Your task to perform on an android device: delete location history Image 0: 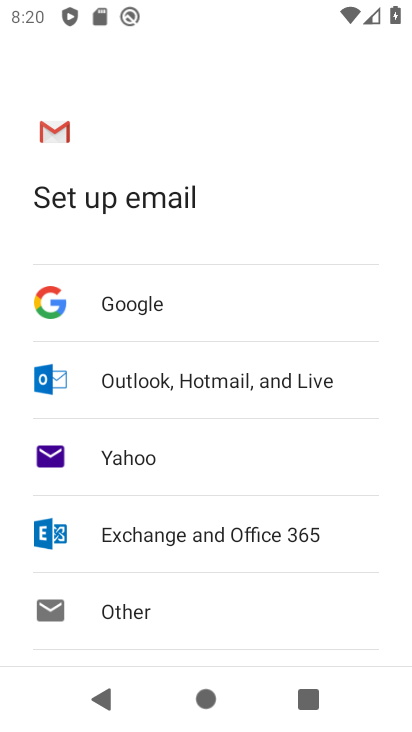
Step 0: press home button
Your task to perform on an android device: delete location history Image 1: 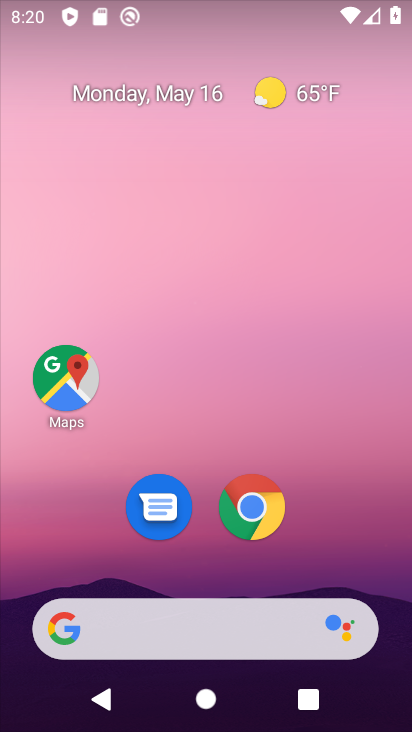
Step 1: drag from (190, 567) to (188, 0)
Your task to perform on an android device: delete location history Image 2: 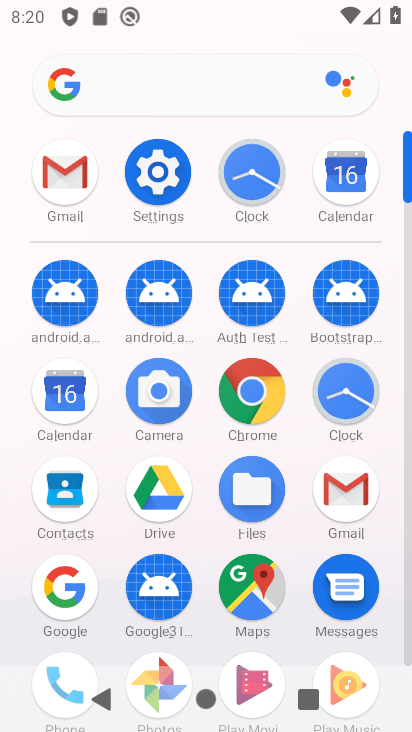
Step 2: click (262, 605)
Your task to perform on an android device: delete location history Image 3: 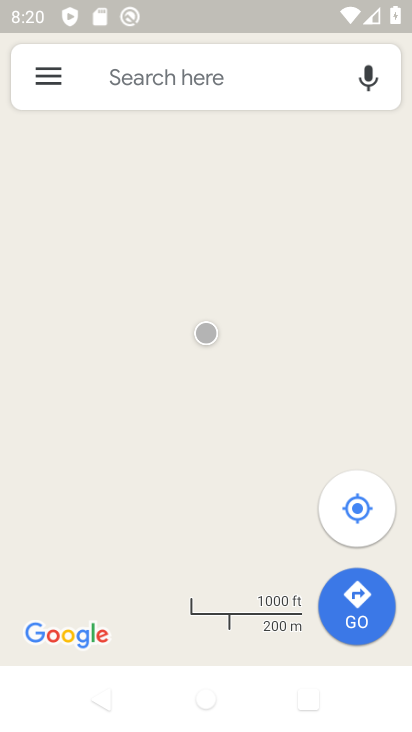
Step 3: click (28, 76)
Your task to perform on an android device: delete location history Image 4: 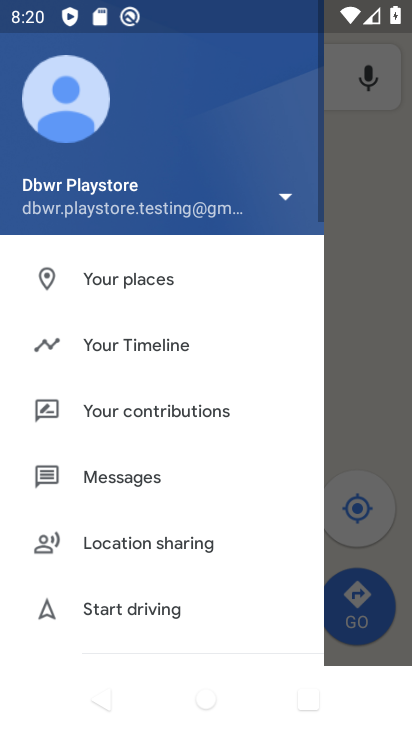
Step 4: drag from (92, 520) to (65, 151)
Your task to perform on an android device: delete location history Image 5: 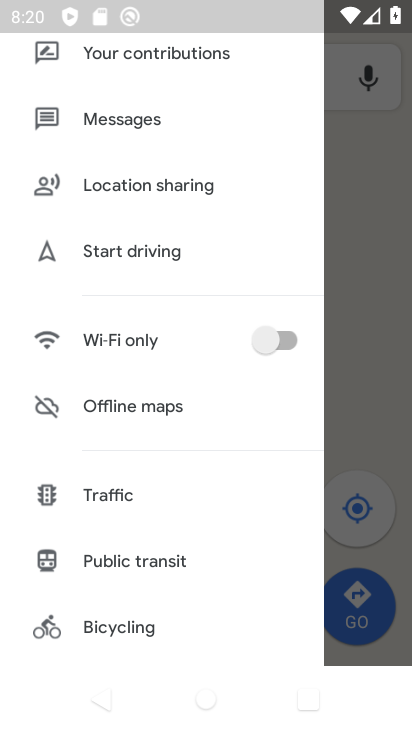
Step 5: drag from (137, 462) to (132, 61)
Your task to perform on an android device: delete location history Image 6: 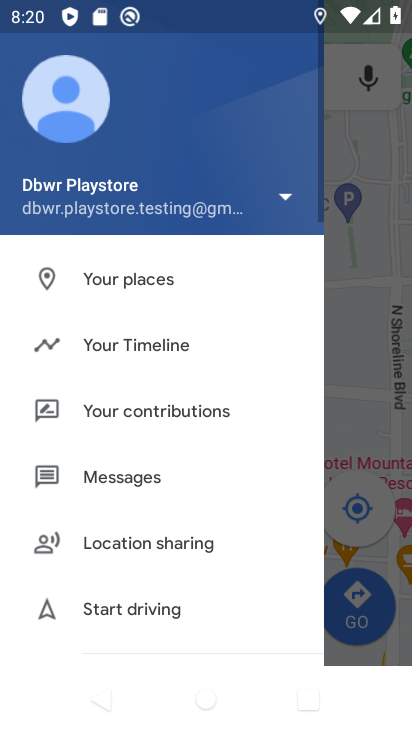
Step 6: drag from (162, 498) to (149, 96)
Your task to perform on an android device: delete location history Image 7: 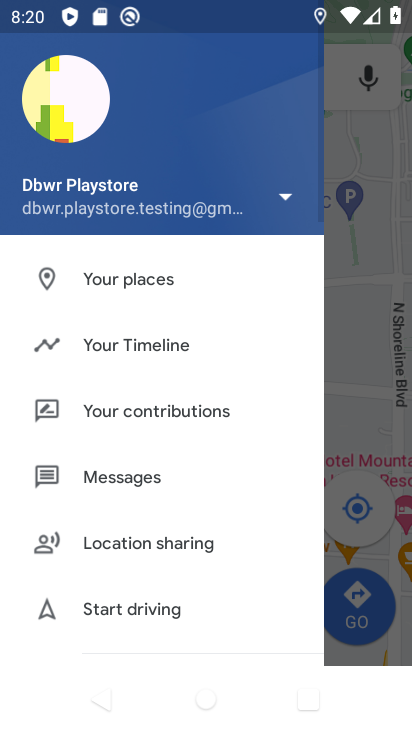
Step 7: drag from (167, 627) to (134, 43)
Your task to perform on an android device: delete location history Image 8: 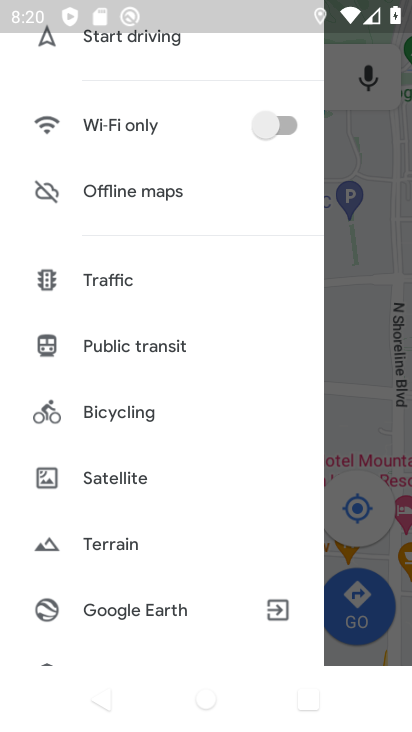
Step 8: drag from (158, 608) to (110, 110)
Your task to perform on an android device: delete location history Image 9: 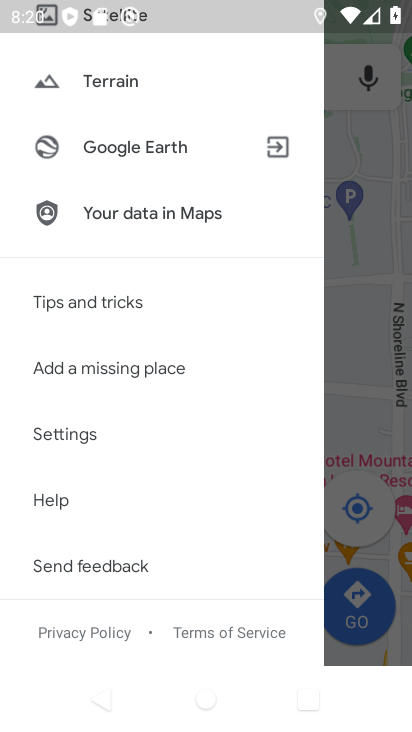
Step 9: click (76, 444)
Your task to perform on an android device: delete location history Image 10: 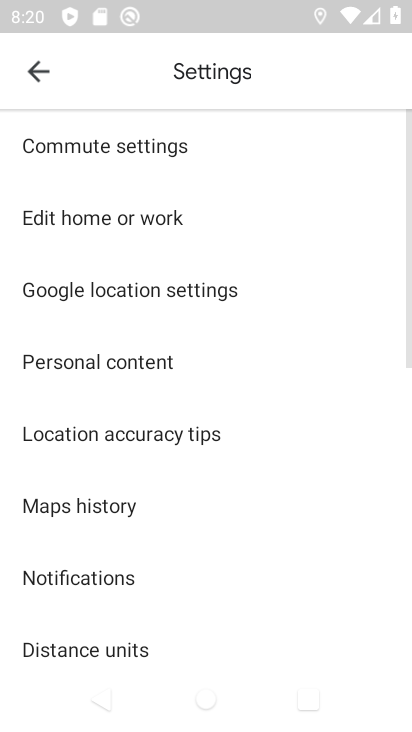
Step 10: drag from (189, 572) to (148, 101)
Your task to perform on an android device: delete location history Image 11: 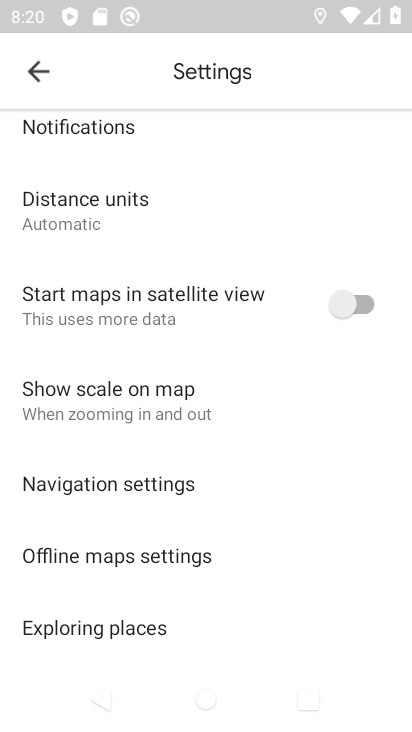
Step 11: drag from (177, 609) to (168, 171)
Your task to perform on an android device: delete location history Image 12: 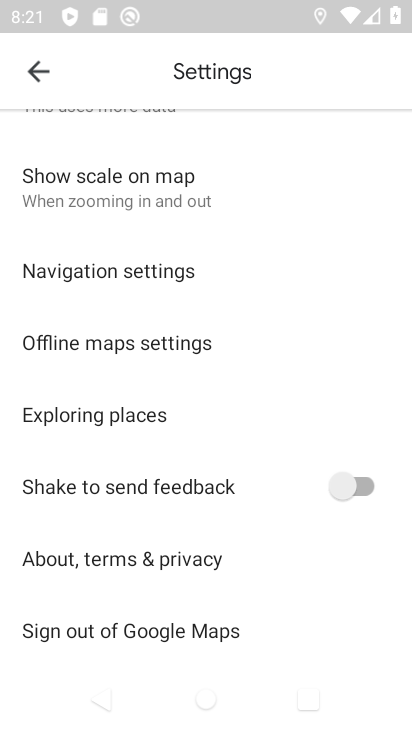
Step 12: click (44, 89)
Your task to perform on an android device: delete location history Image 13: 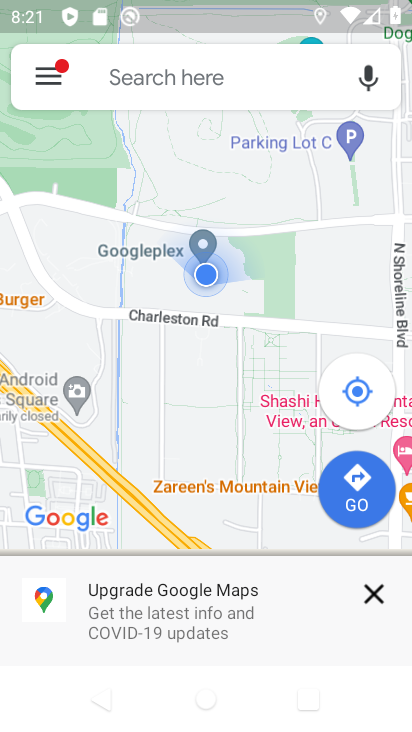
Step 13: click (39, 51)
Your task to perform on an android device: delete location history Image 14: 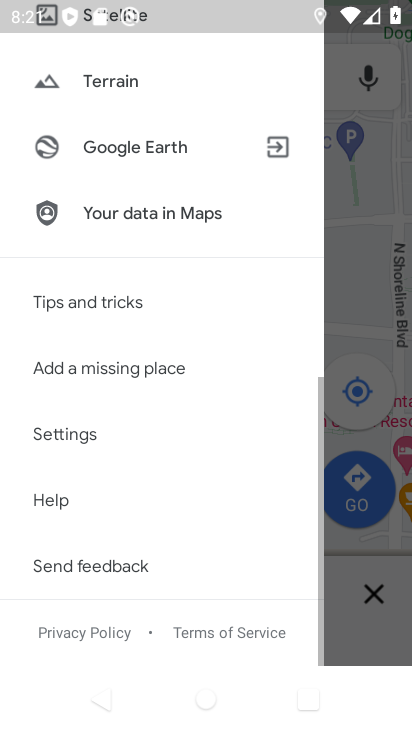
Step 14: drag from (114, 160) to (92, 731)
Your task to perform on an android device: delete location history Image 15: 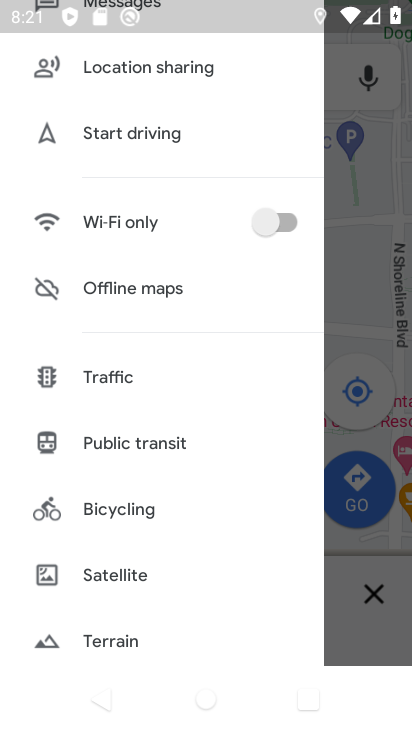
Step 15: drag from (126, 217) to (137, 352)
Your task to perform on an android device: delete location history Image 16: 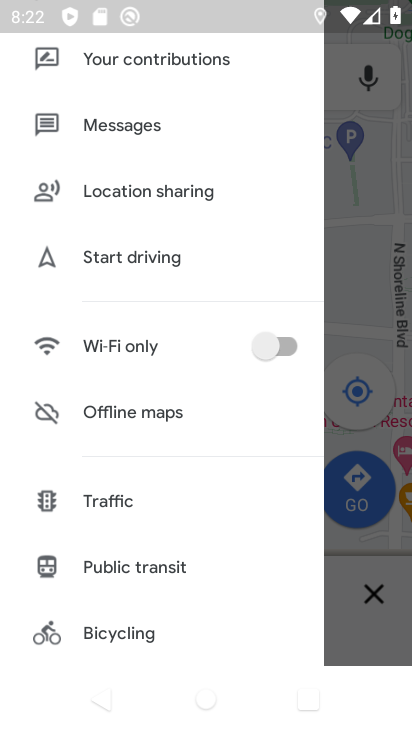
Step 16: drag from (84, 140) to (109, 629)
Your task to perform on an android device: delete location history Image 17: 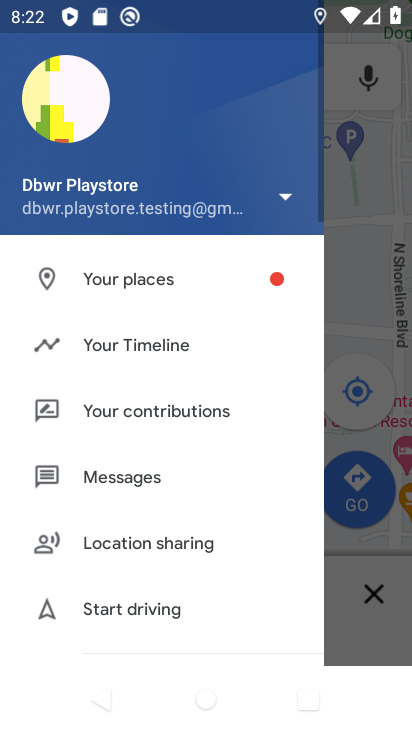
Step 17: click (82, 343)
Your task to perform on an android device: delete location history Image 18: 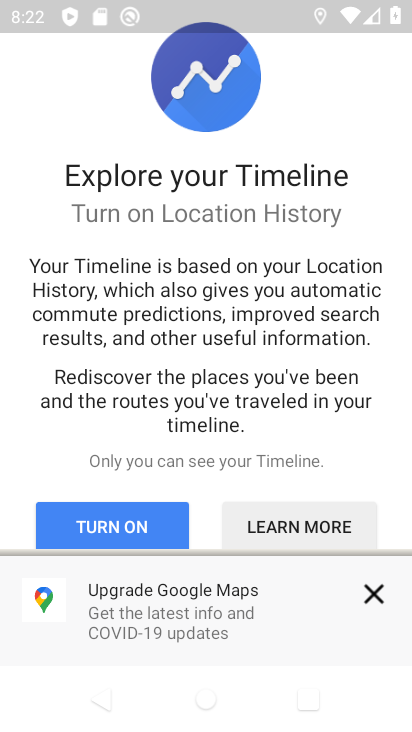
Step 18: click (369, 591)
Your task to perform on an android device: delete location history Image 19: 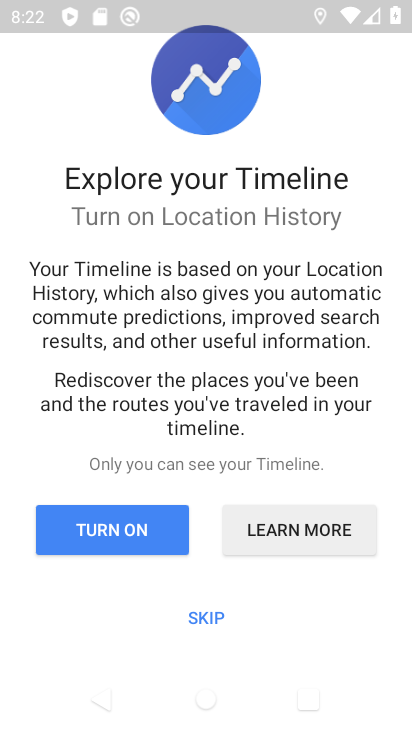
Step 19: click (205, 616)
Your task to perform on an android device: delete location history Image 20: 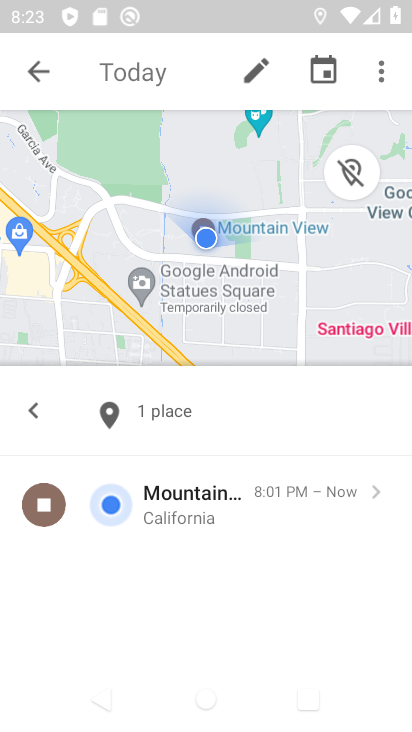
Step 20: click (367, 78)
Your task to perform on an android device: delete location history Image 21: 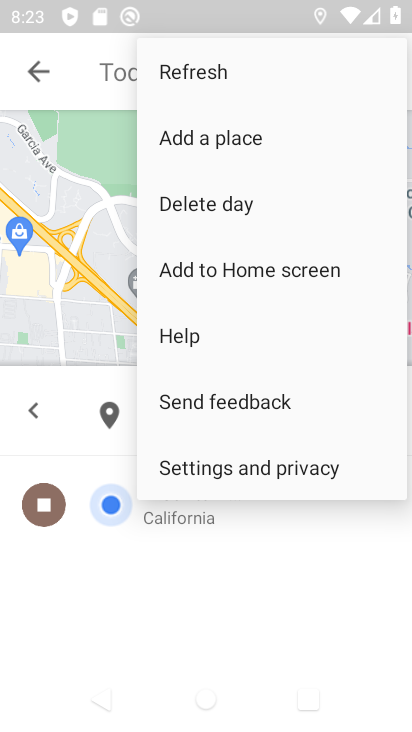
Step 21: click (253, 452)
Your task to perform on an android device: delete location history Image 22: 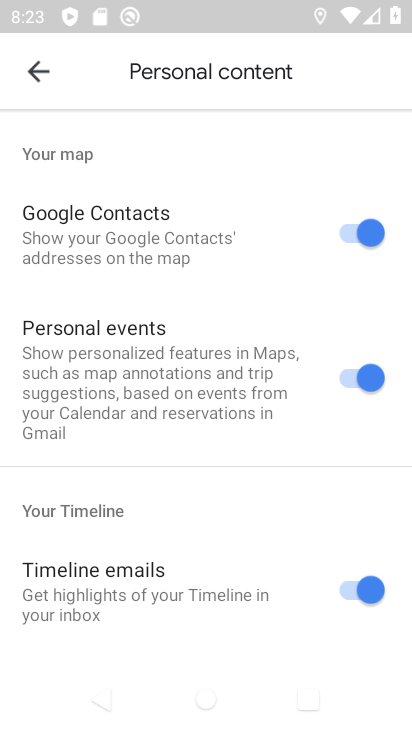
Step 22: drag from (185, 580) to (124, 91)
Your task to perform on an android device: delete location history Image 23: 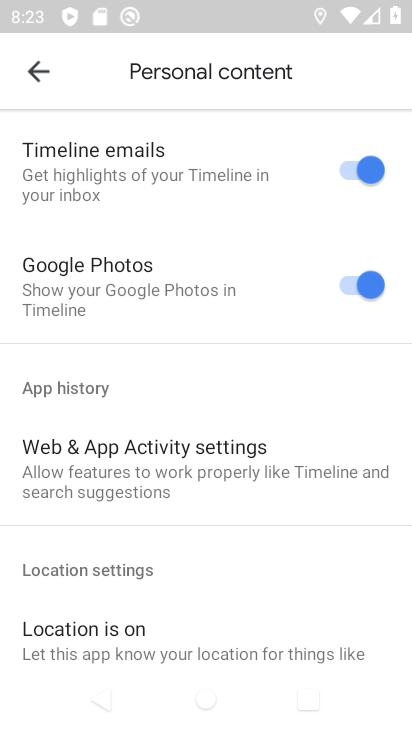
Step 23: drag from (254, 462) to (99, 82)
Your task to perform on an android device: delete location history Image 24: 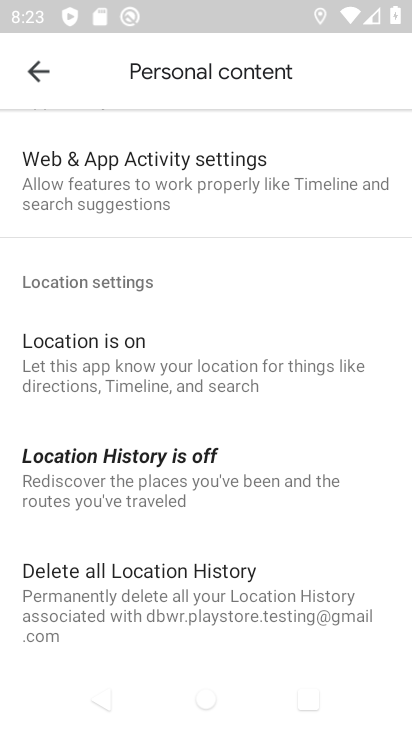
Step 24: click (180, 610)
Your task to perform on an android device: delete location history Image 25: 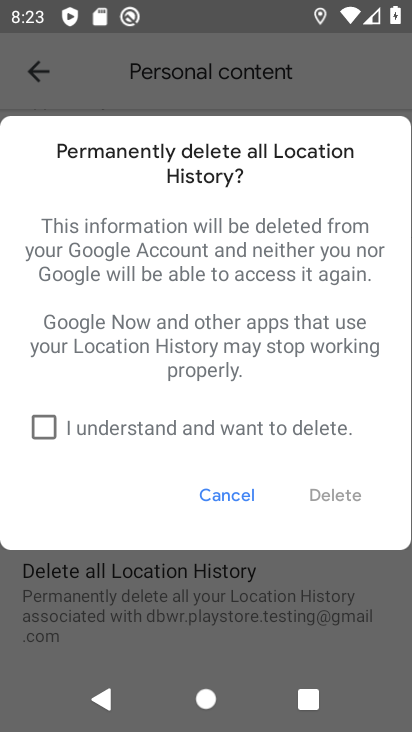
Step 25: click (51, 428)
Your task to perform on an android device: delete location history Image 26: 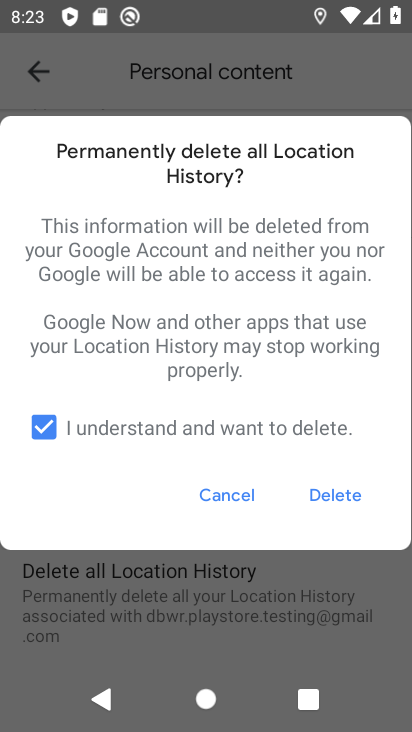
Step 26: click (340, 498)
Your task to perform on an android device: delete location history Image 27: 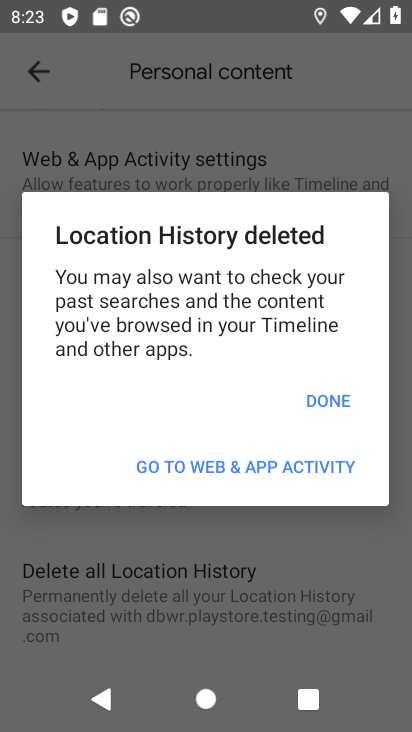
Step 27: click (322, 376)
Your task to perform on an android device: delete location history Image 28: 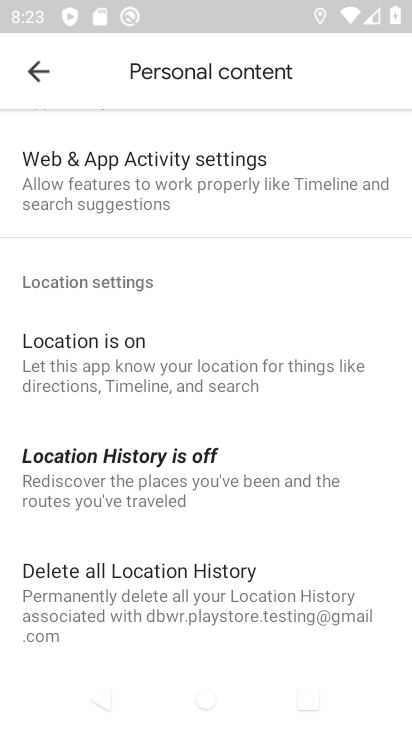
Step 28: click (249, 573)
Your task to perform on an android device: delete location history Image 29: 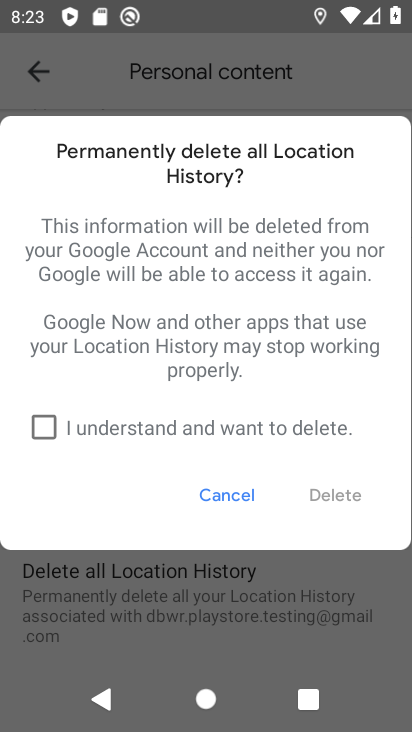
Step 29: click (47, 426)
Your task to perform on an android device: delete location history Image 30: 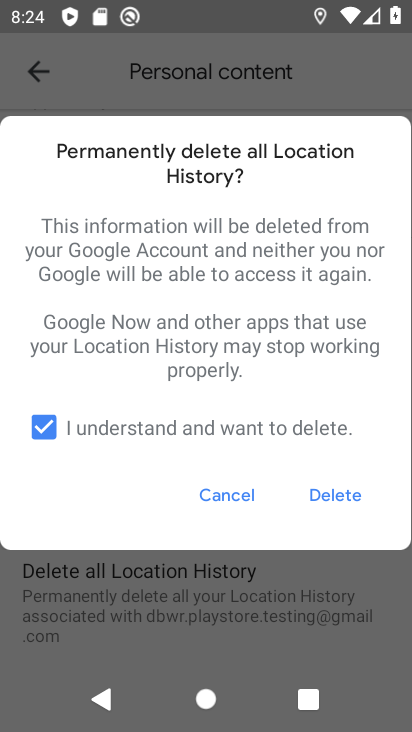
Step 30: click (354, 501)
Your task to perform on an android device: delete location history Image 31: 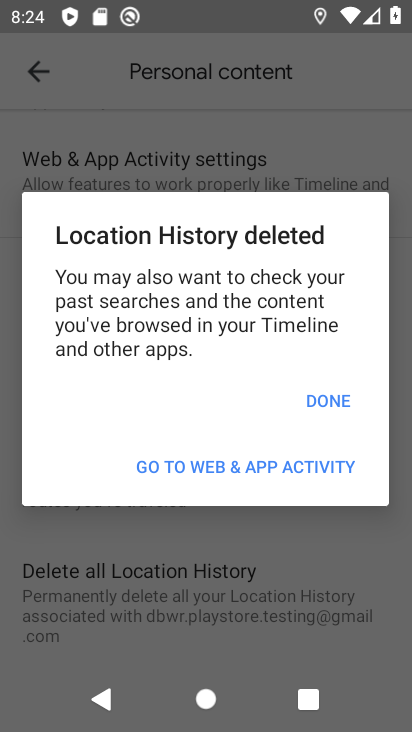
Step 31: click (332, 405)
Your task to perform on an android device: delete location history Image 32: 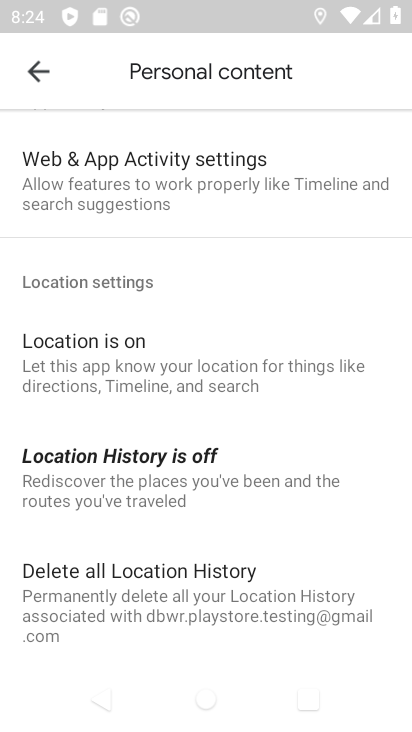
Step 32: task complete